Your task to perform on an android device: clear history in the chrome app Image 0: 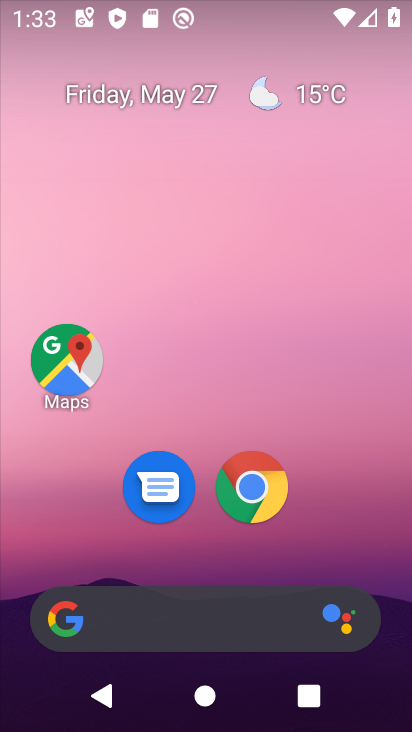
Step 0: click (244, 491)
Your task to perform on an android device: clear history in the chrome app Image 1: 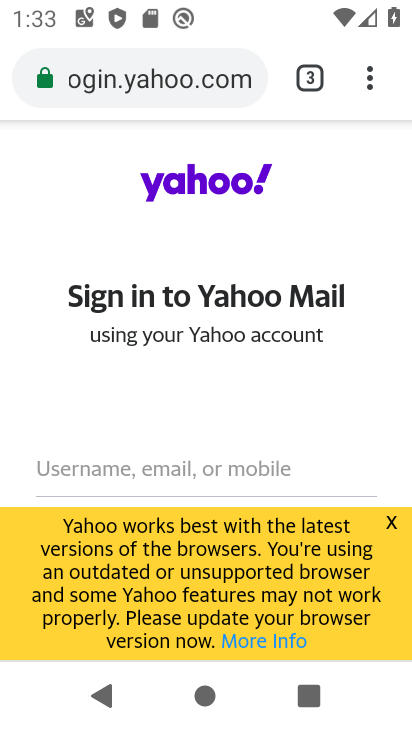
Step 1: click (381, 73)
Your task to perform on an android device: clear history in the chrome app Image 2: 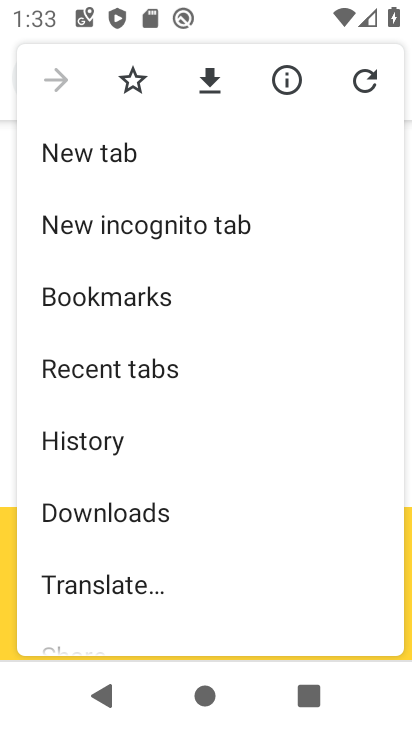
Step 2: click (140, 449)
Your task to perform on an android device: clear history in the chrome app Image 3: 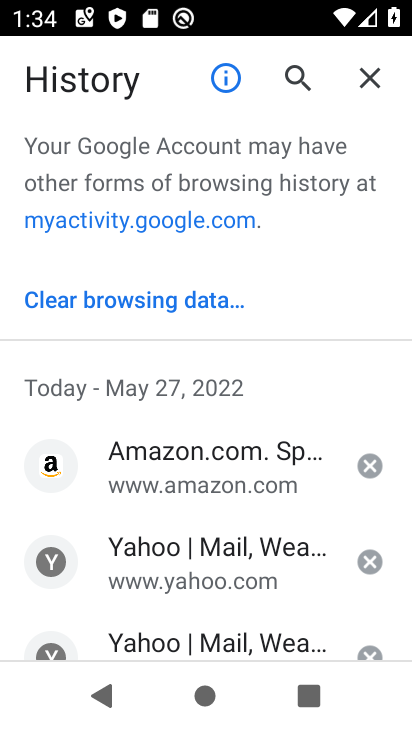
Step 3: click (173, 312)
Your task to perform on an android device: clear history in the chrome app Image 4: 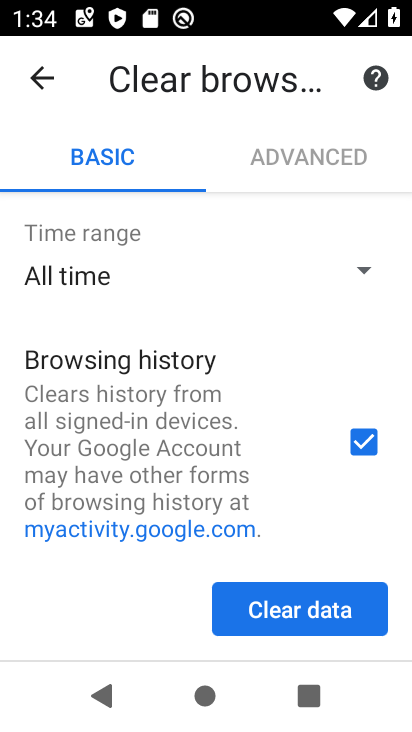
Step 4: click (299, 604)
Your task to perform on an android device: clear history in the chrome app Image 5: 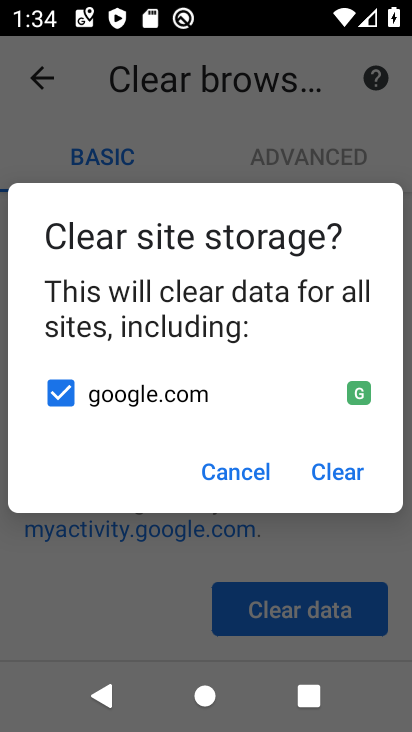
Step 5: click (374, 472)
Your task to perform on an android device: clear history in the chrome app Image 6: 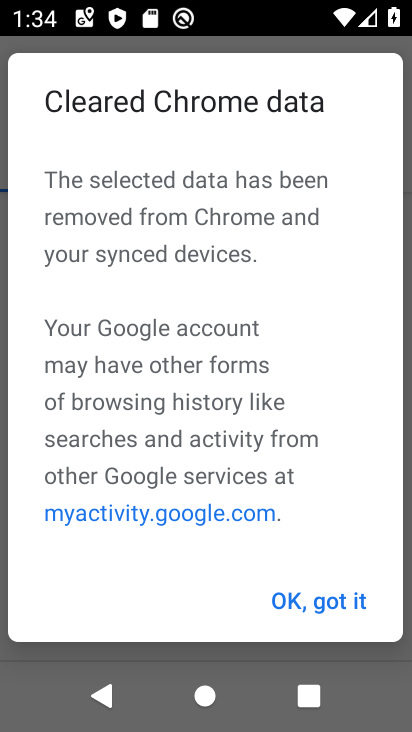
Step 6: click (300, 603)
Your task to perform on an android device: clear history in the chrome app Image 7: 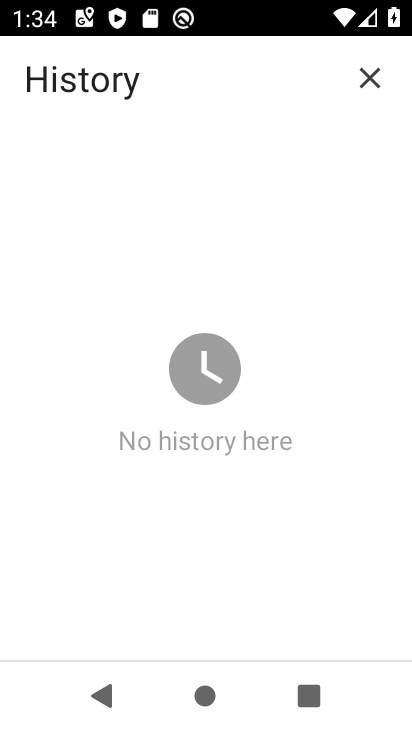
Step 7: task complete